Your task to perform on an android device: turn notification dots off Image 0: 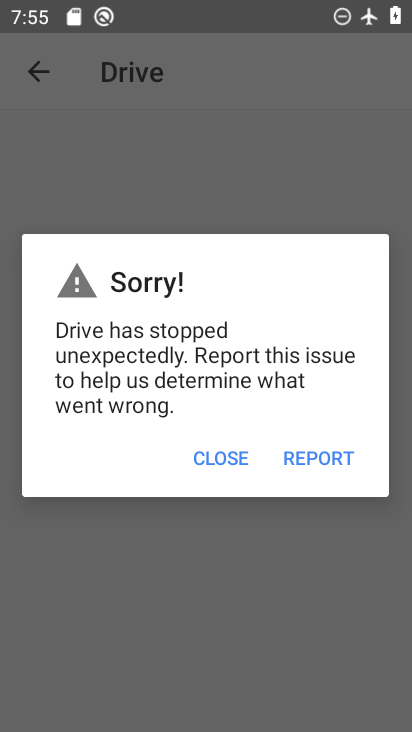
Step 0: click (231, 456)
Your task to perform on an android device: turn notification dots off Image 1: 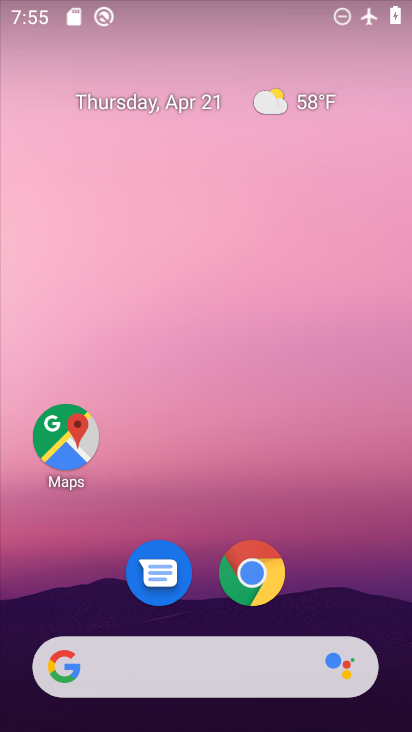
Step 1: drag from (215, 605) to (270, 216)
Your task to perform on an android device: turn notification dots off Image 2: 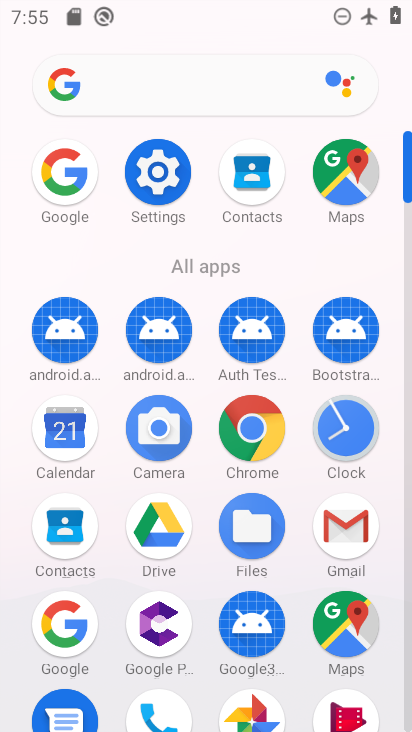
Step 2: click (153, 176)
Your task to perform on an android device: turn notification dots off Image 3: 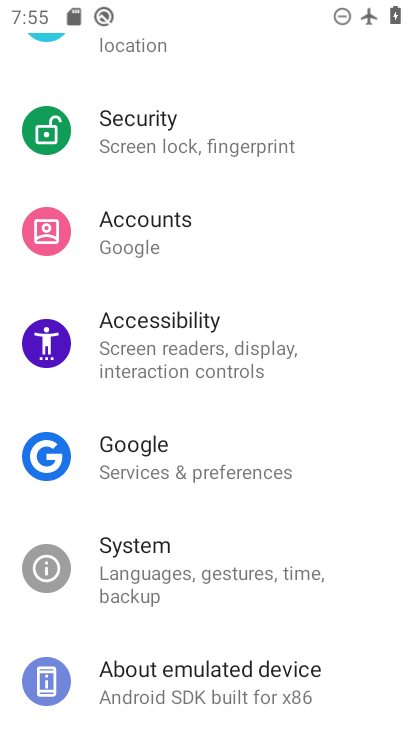
Step 3: drag from (248, 69) to (259, 627)
Your task to perform on an android device: turn notification dots off Image 4: 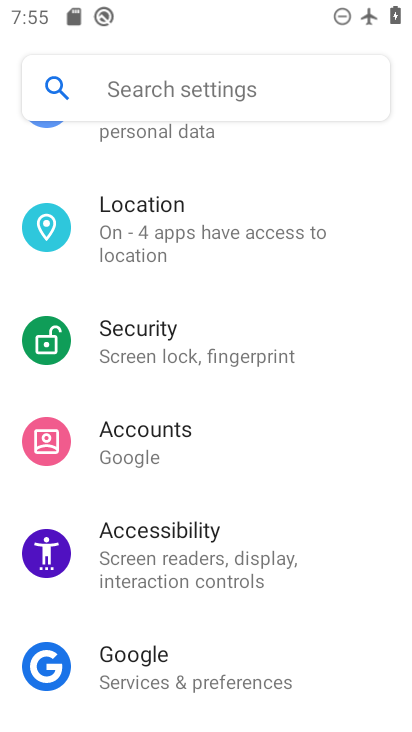
Step 4: drag from (239, 147) to (253, 591)
Your task to perform on an android device: turn notification dots off Image 5: 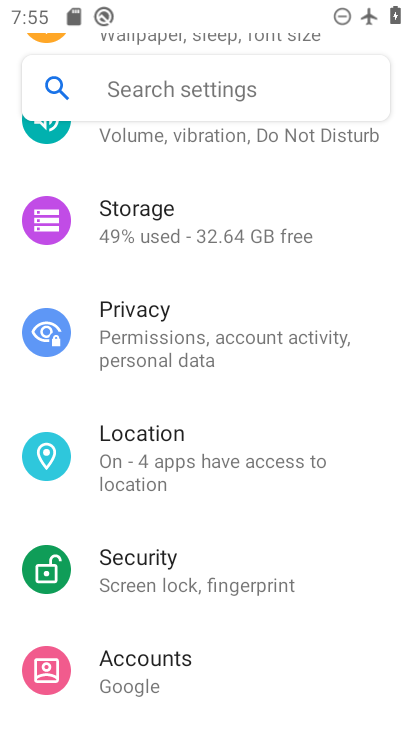
Step 5: drag from (240, 332) to (276, 617)
Your task to perform on an android device: turn notification dots off Image 6: 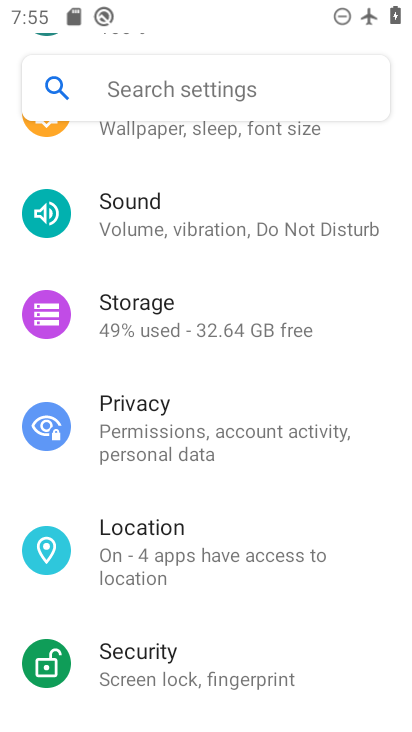
Step 6: drag from (234, 175) to (254, 568)
Your task to perform on an android device: turn notification dots off Image 7: 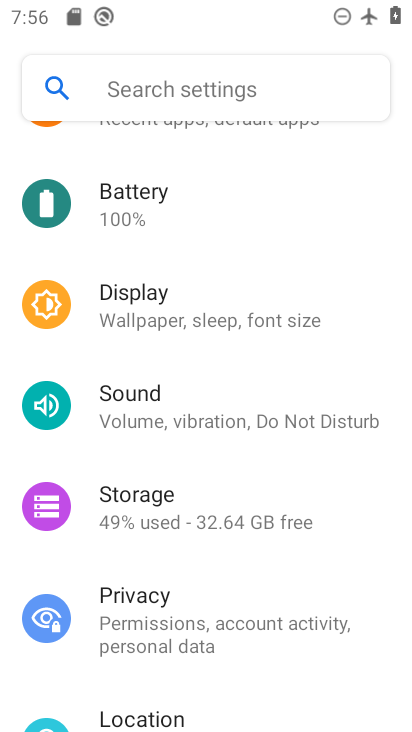
Step 7: drag from (284, 257) to (288, 608)
Your task to perform on an android device: turn notification dots off Image 8: 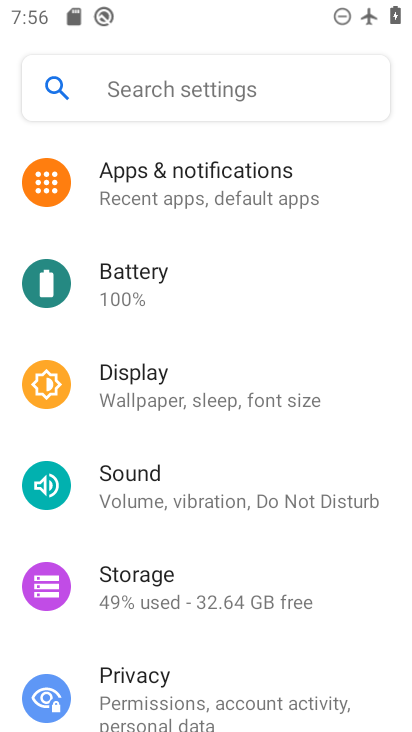
Step 8: click (220, 179)
Your task to perform on an android device: turn notification dots off Image 9: 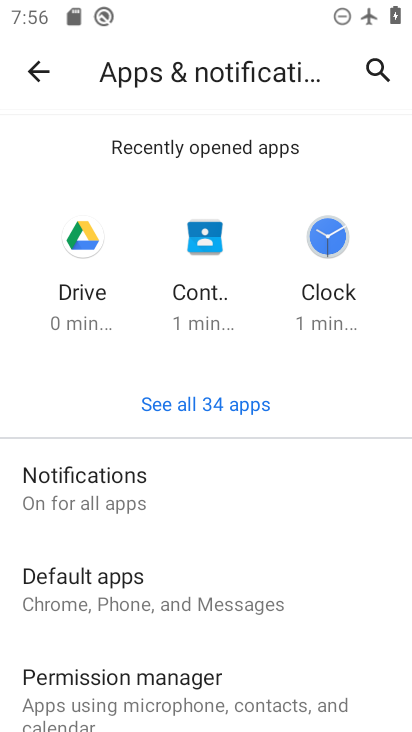
Step 9: click (65, 495)
Your task to perform on an android device: turn notification dots off Image 10: 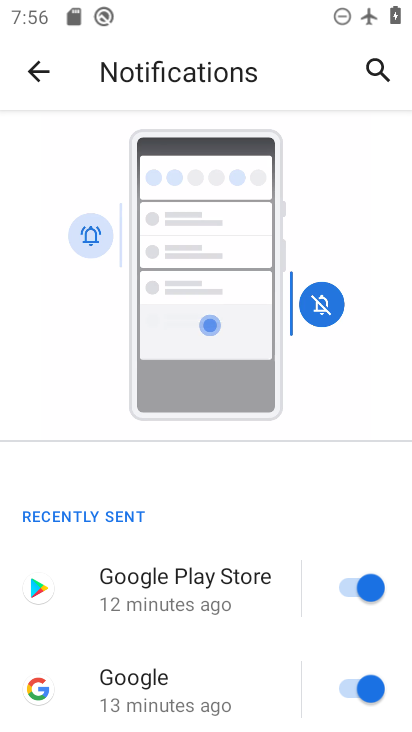
Step 10: drag from (201, 698) to (236, 223)
Your task to perform on an android device: turn notification dots off Image 11: 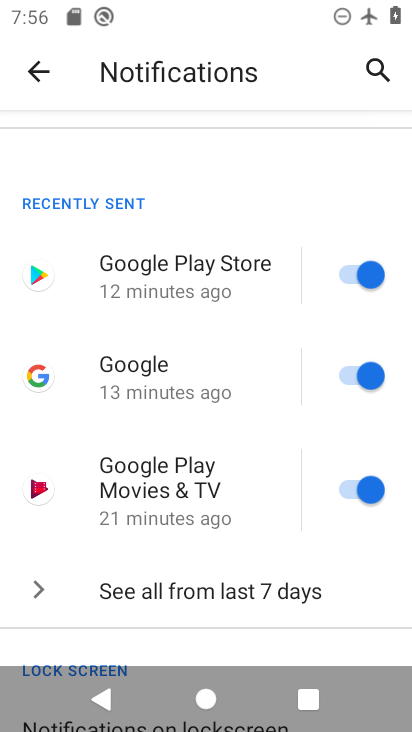
Step 11: drag from (250, 597) to (332, 210)
Your task to perform on an android device: turn notification dots off Image 12: 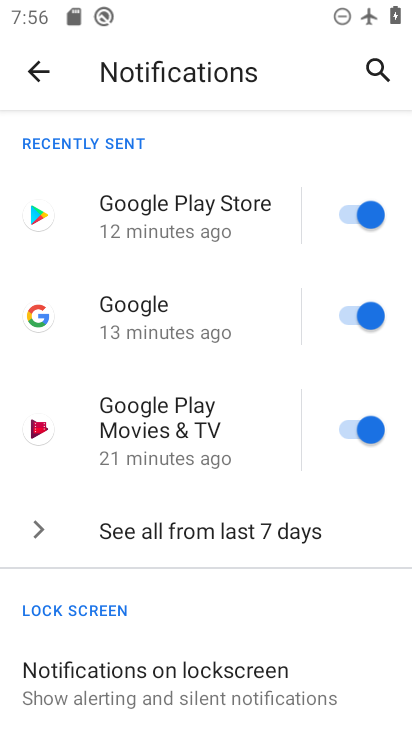
Step 12: drag from (167, 689) to (195, 237)
Your task to perform on an android device: turn notification dots off Image 13: 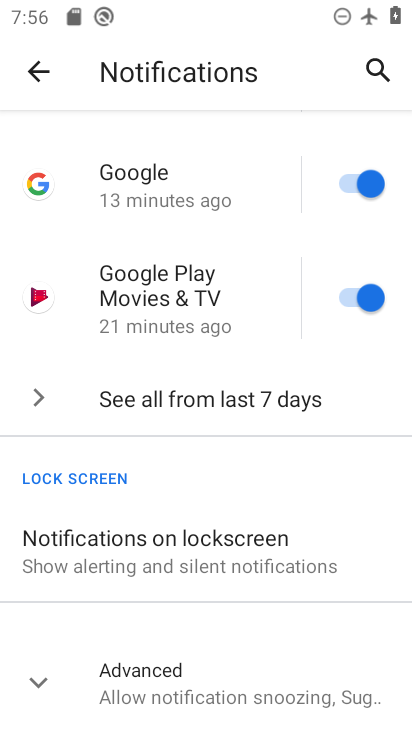
Step 13: click (185, 681)
Your task to perform on an android device: turn notification dots off Image 14: 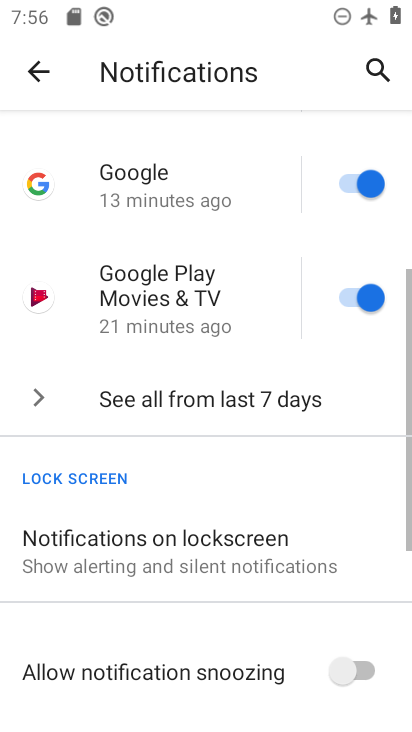
Step 14: drag from (202, 627) to (216, 438)
Your task to perform on an android device: turn notification dots off Image 15: 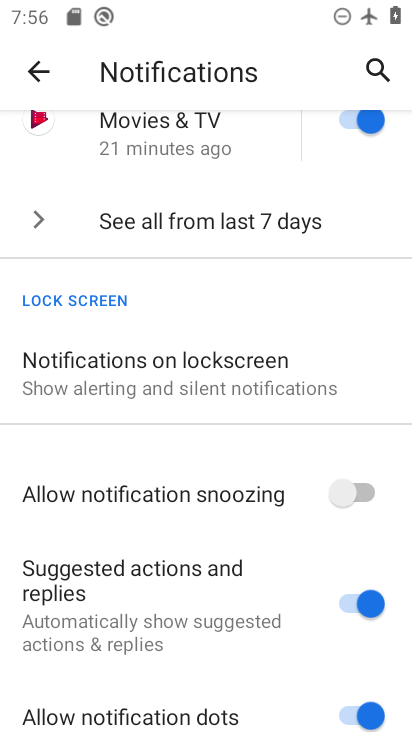
Step 15: drag from (210, 707) to (239, 432)
Your task to perform on an android device: turn notification dots off Image 16: 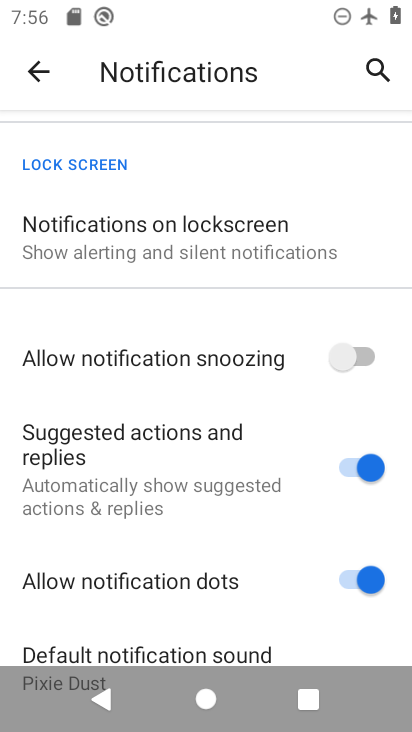
Step 16: click (334, 579)
Your task to perform on an android device: turn notification dots off Image 17: 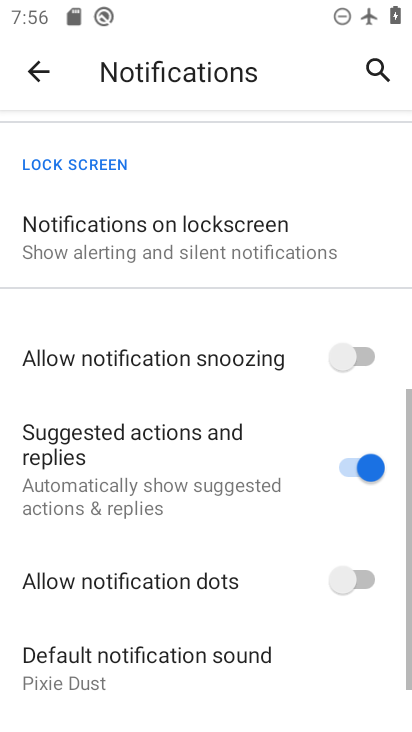
Step 17: task complete